Your task to perform on an android device: toggle notifications settings in the gmail app Image 0: 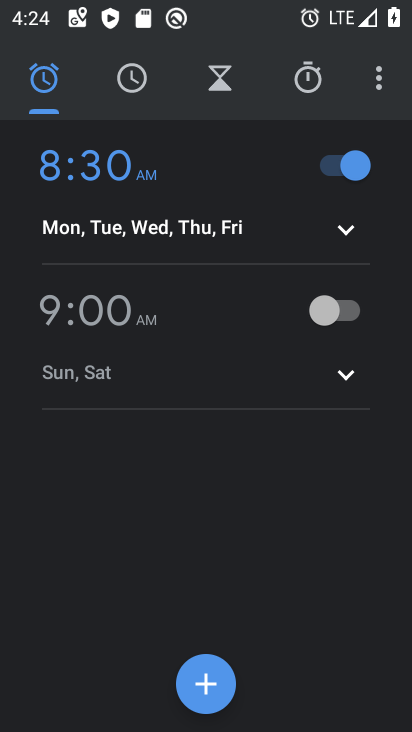
Step 0: press home button
Your task to perform on an android device: toggle notifications settings in the gmail app Image 1: 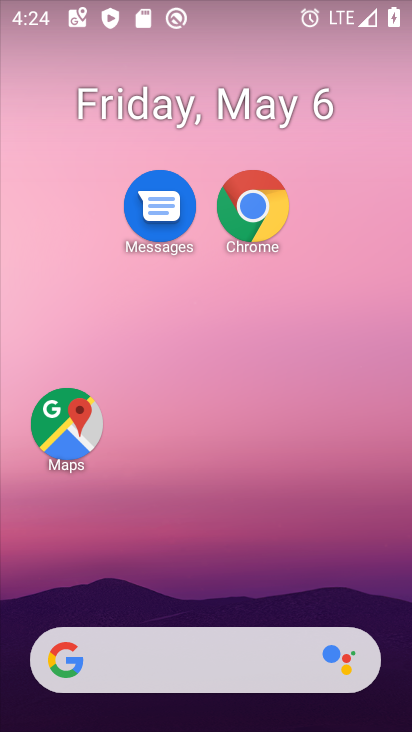
Step 1: drag from (167, 625) to (193, 322)
Your task to perform on an android device: toggle notifications settings in the gmail app Image 2: 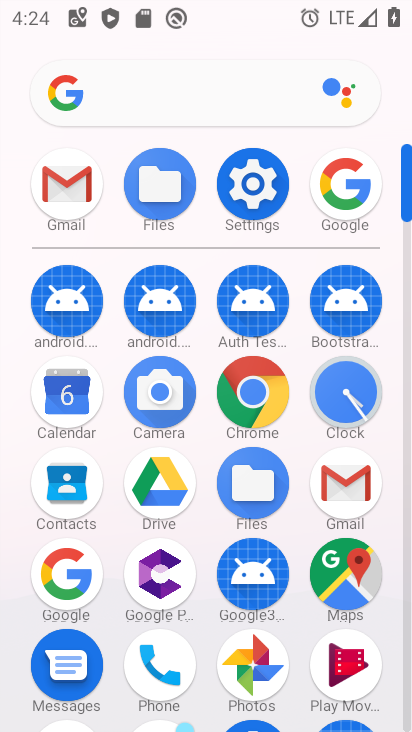
Step 2: click (332, 493)
Your task to perform on an android device: toggle notifications settings in the gmail app Image 3: 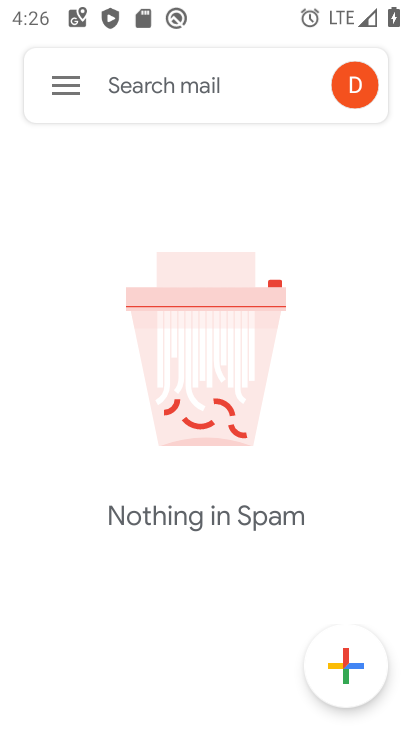
Step 3: click (59, 97)
Your task to perform on an android device: toggle notifications settings in the gmail app Image 4: 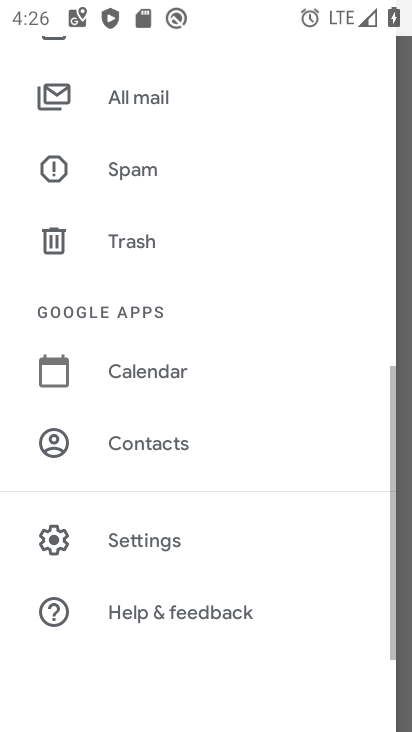
Step 4: click (169, 539)
Your task to perform on an android device: toggle notifications settings in the gmail app Image 5: 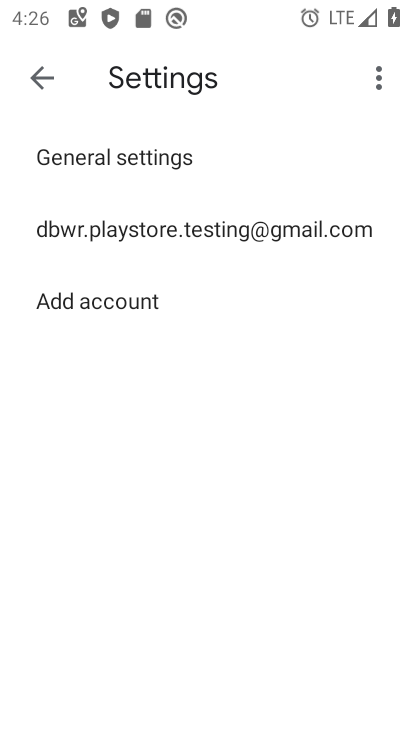
Step 5: click (161, 155)
Your task to perform on an android device: toggle notifications settings in the gmail app Image 6: 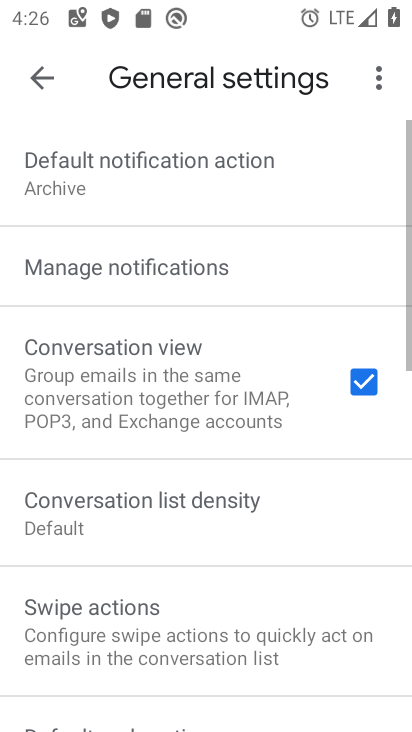
Step 6: click (166, 261)
Your task to perform on an android device: toggle notifications settings in the gmail app Image 7: 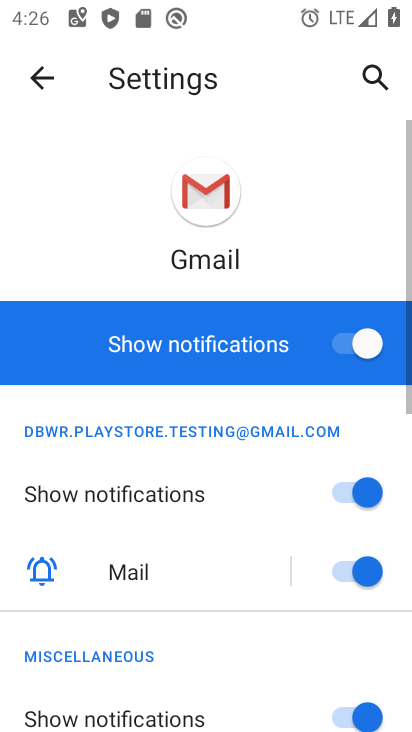
Step 7: click (347, 343)
Your task to perform on an android device: toggle notifications settings in the gmail app Image 8: 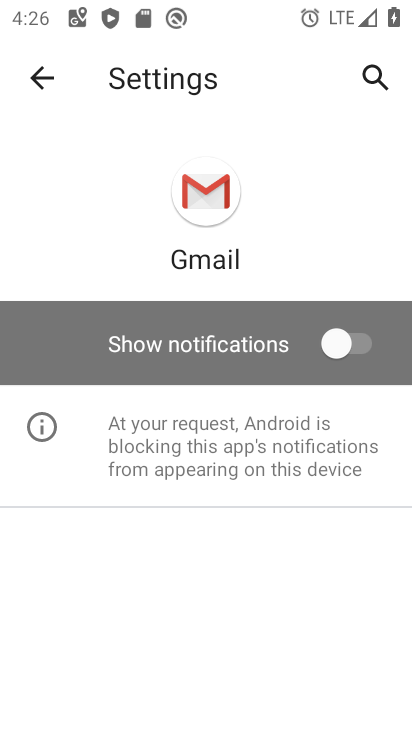
Step 8: task complete